Your task to perform on an android device: Show me popular games on the Play Store Image 0: 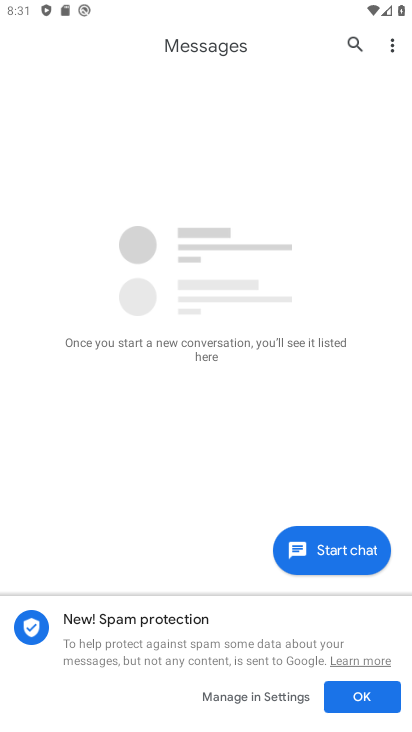
Step 0: press home button
Your task to perform on an android device: Show me popular games on the Play Store Image 1: 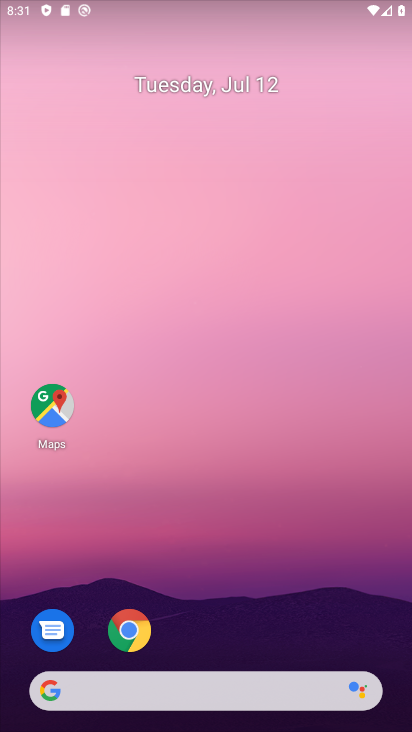
Step 1: drag from (329, 635) to (376, 52)
Your task to perform on an android device: Show me popular games on the Play Store Image 2: 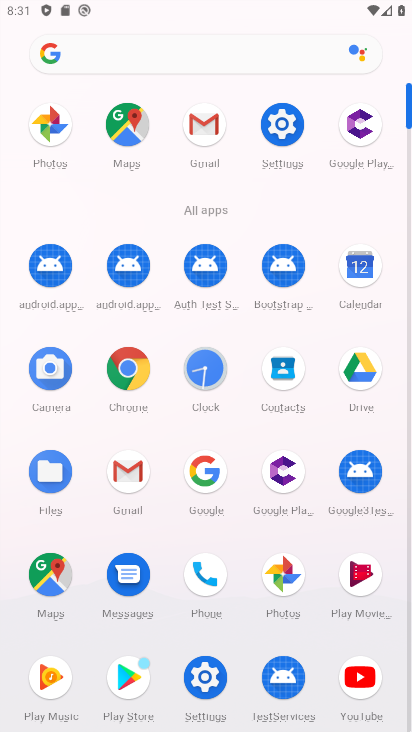
Step 2: click (124, 685)
Your task to perform on an android device: Show me popular games on the Play Store Image 3: 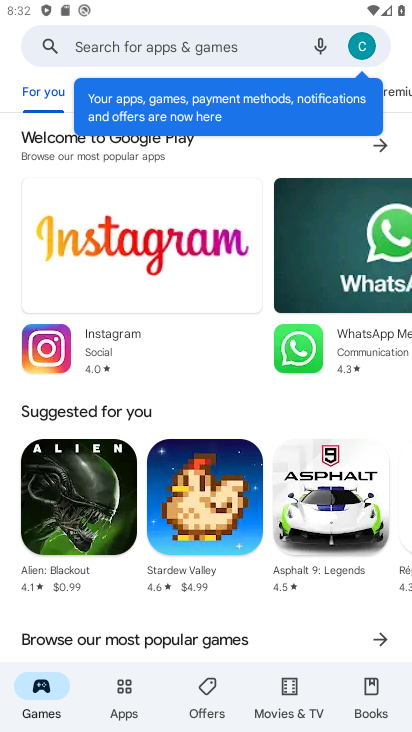
Step 3: drag from (191, 619) to (192, 378)
Your task to perform on an android device: Show me popular games on the Play Store Image 4: 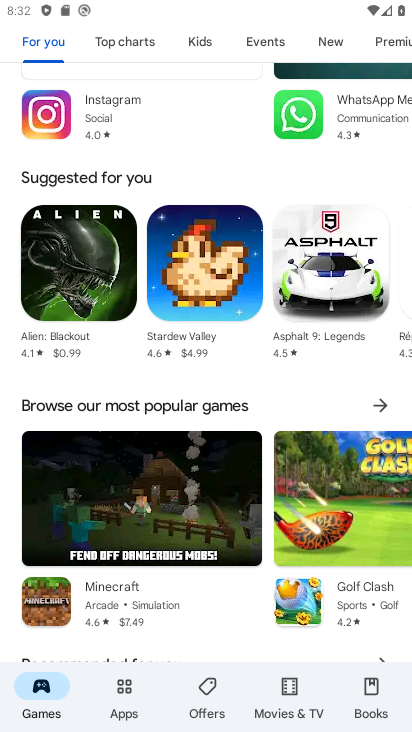
Step 4: click (385, 403)
Your task to perform on an android device: Show me popular games on the Play Store Image 5: 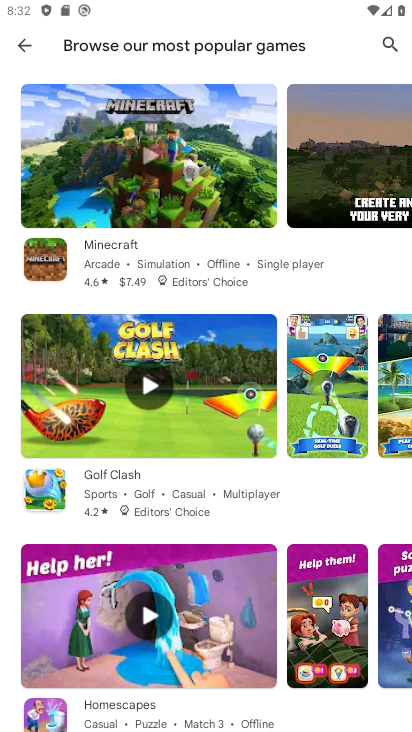
Step 5: task complete